Your task to perform on an android device: move a message to another label in the gmail app Image 0: 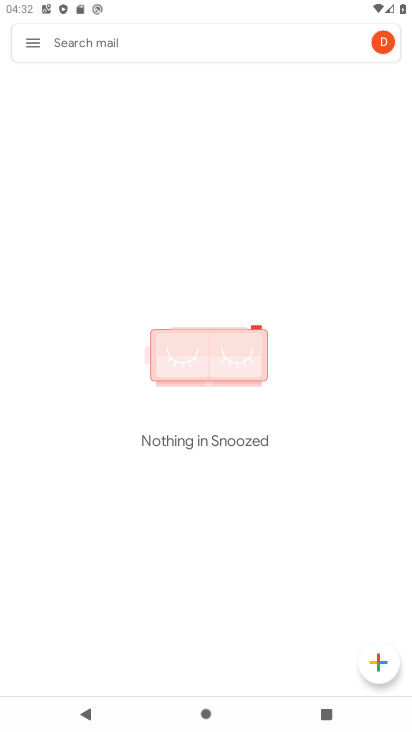
Step 0: press back button
Your task to perform on an android device: move a message to another label in the gmail app Image 1: 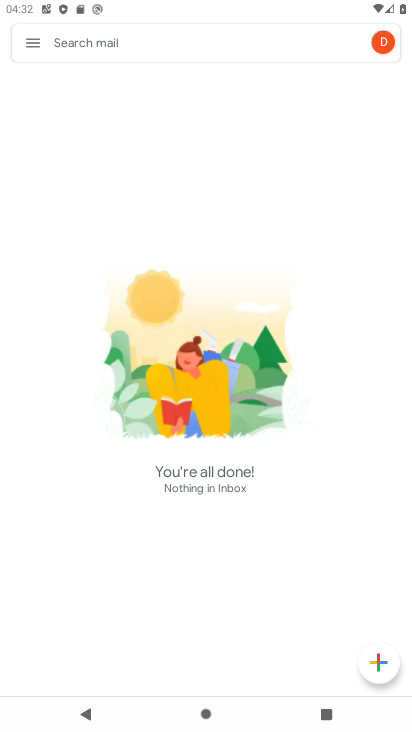
Step 1: press back button
Your task to perform on an android device: move a message to another label in the gmail app Image 2: 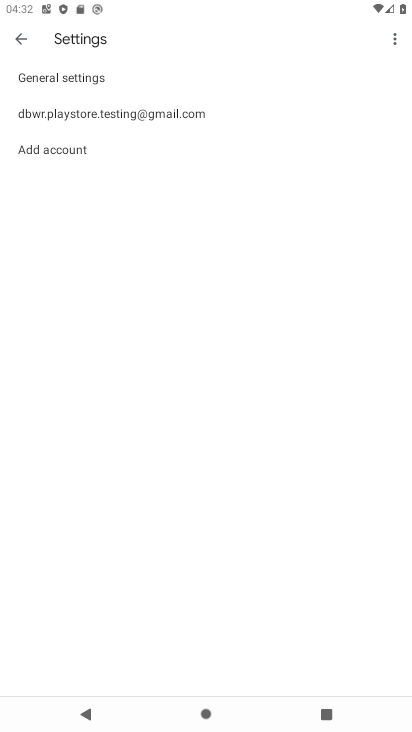
Step 2: press back button
Your task to perform on an android device: move a message to another label in the gmail app Image 3: 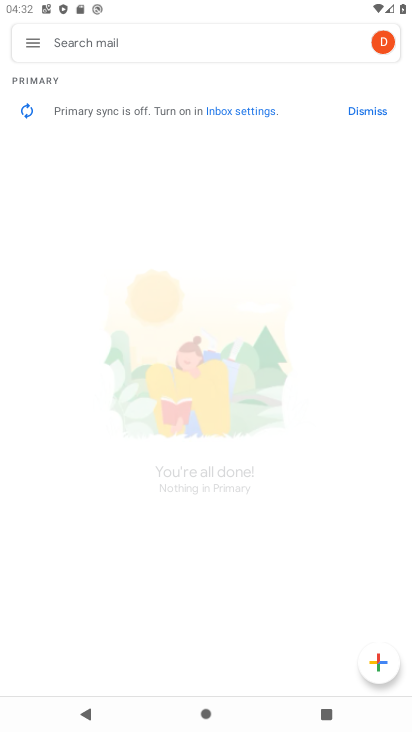
Step 3: press back button
Your task to perform on an android device: move a message to another label in the gmail app Image 4: 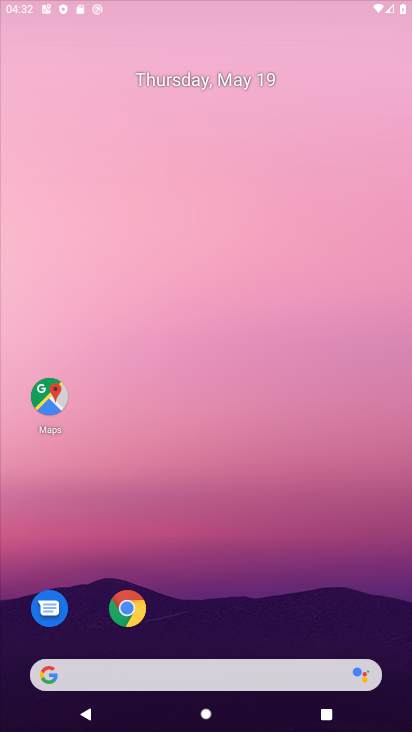
Step 4: press back button
Your task to perform on an android device: move a message to another label in the gmail app Image 5: 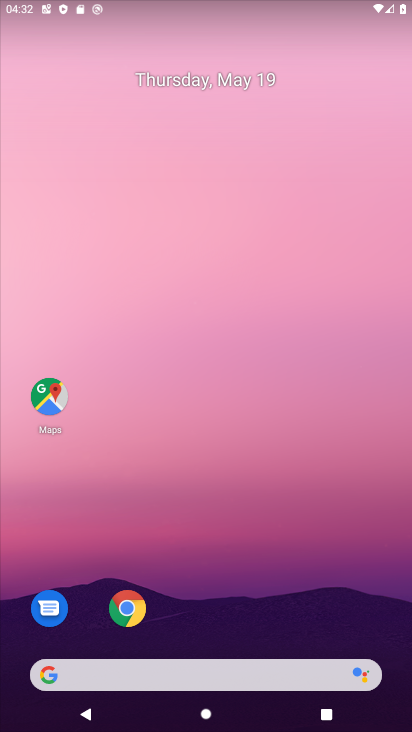
Step 5: drag from (247, 541) to (181, 147)
Your task to perform on an android device: move a message to another label in the gmail app Image 6: 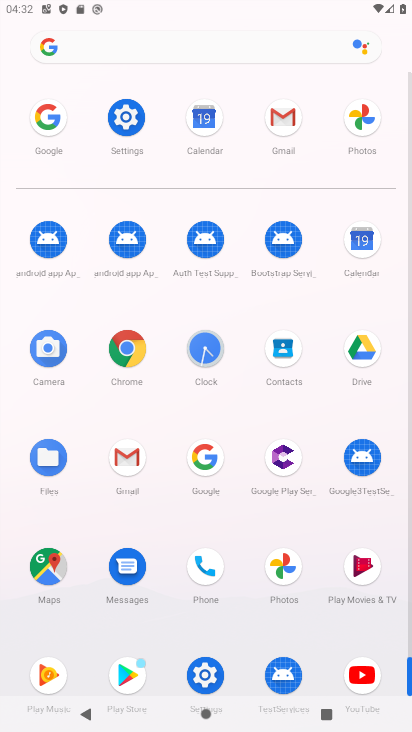
Step 6: click (282, 114)
Your task to perform on an android device: move a message to another label in the gmail app Image 7: 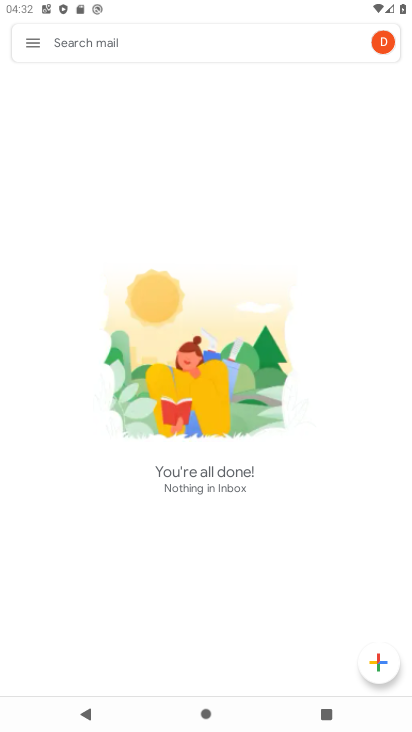
Step 7: click (34, 38)
Your task to perform on an android device: move a message to another label in the gmail app Image 8: 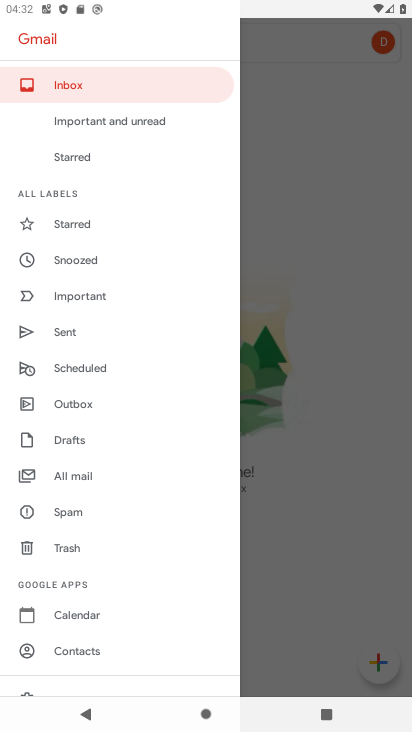
Step 8: click (64, 113)
Your task to perform on an android device: move a message to another label in the gmail app Image 9: 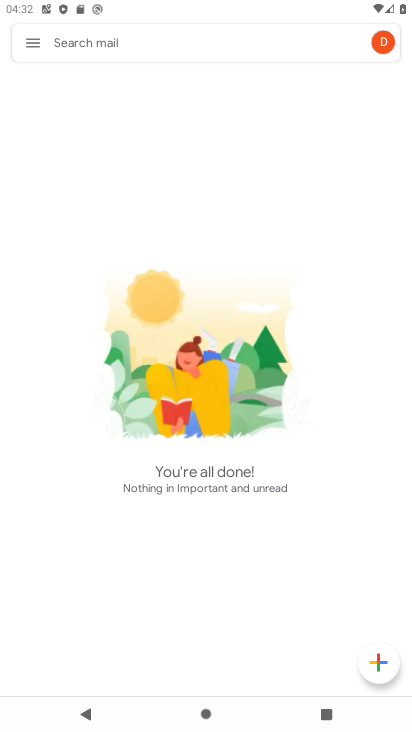
Step 9: click (31, 46)
Your task to perform on an android device: move a message to another label in the gmail app Image 10: 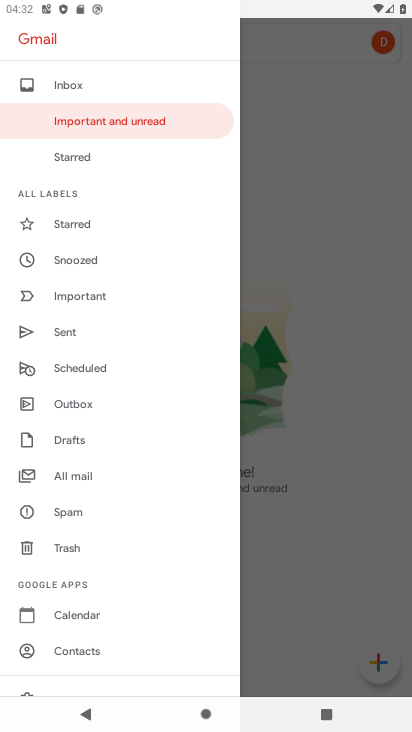
Step 10: click (80, 480)
Your task to perform on an android device: move a message to another label in the gmail app Image 11: 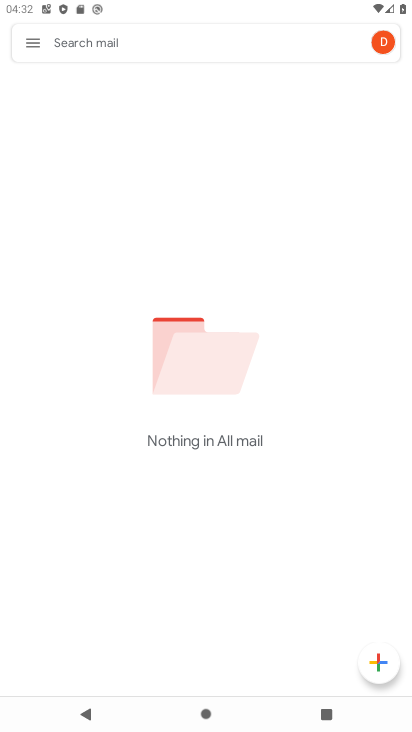
Step 11: task complete